Your task to perform on an android device: Show me productivity apps on the Play Store Image 0: 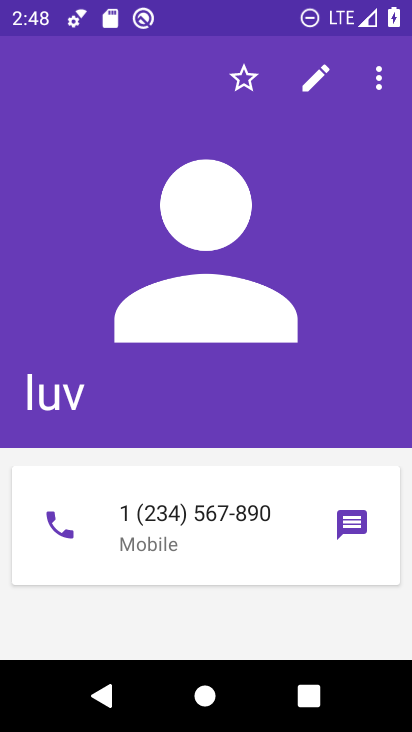
Step 0: press home button
Your task to perform on an android device: Show me productivity apps on the Play Store Image 1: 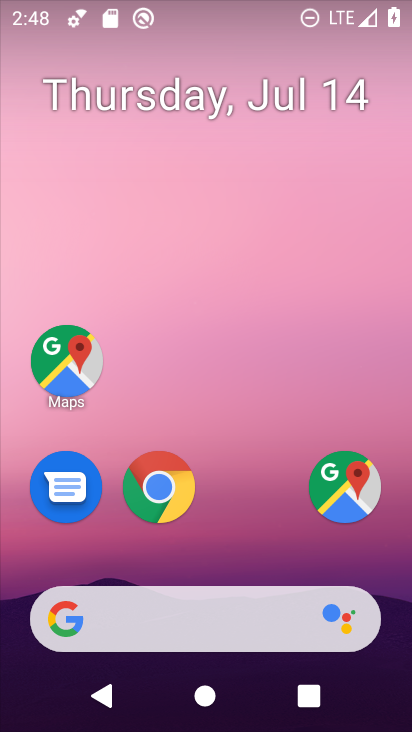
Step 1: drag from (273, 539) to (283, 154)
Your task to perform on an android device: Show me productivity apps on the Play Store Image 2: 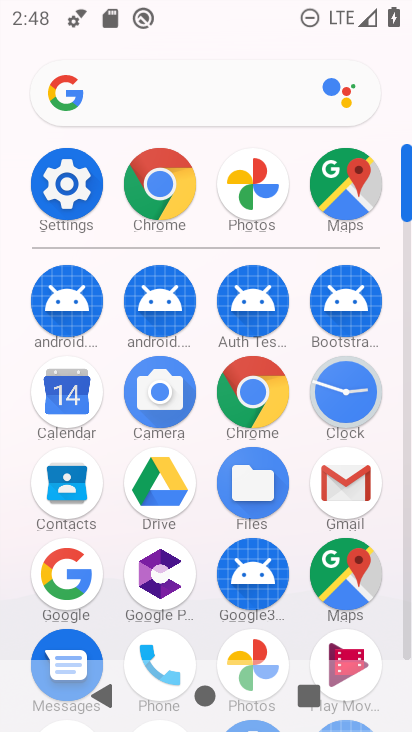
Step 2: drag from (388, 521) to (385, 246)
Your task to perform on an android device: Show me productivity apps on the Play Store Image 3: 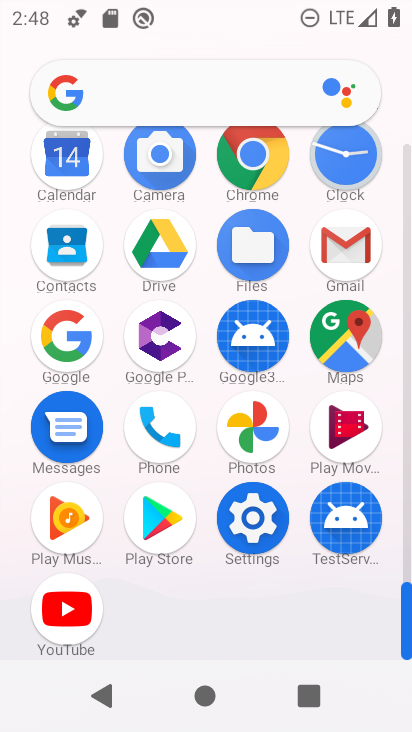
Step 3: click (163, 530)
Your task to perform on an android device: Show me productivity apps on the Play Store Image 4: 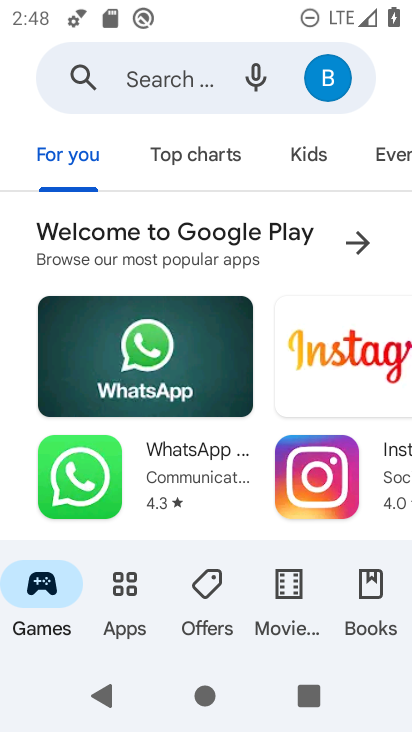
Step 4: click (117, 592)
Your task to perform on an android device: Show me productivity apps on the Play Store Image 5: 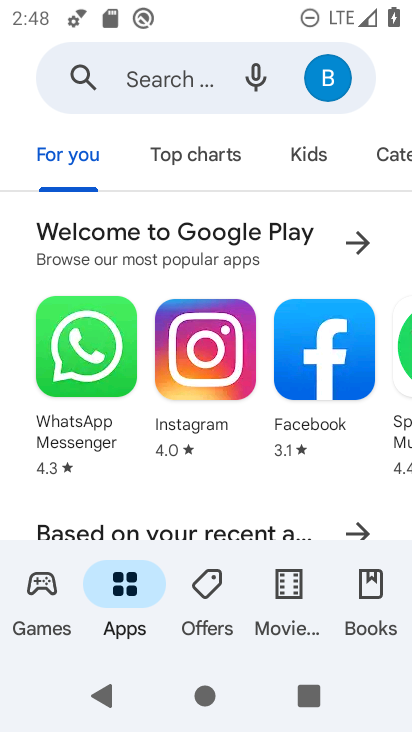
Step 5: task complete